Your task to perform on an android device: Search for hotels in Orlando Image 0: 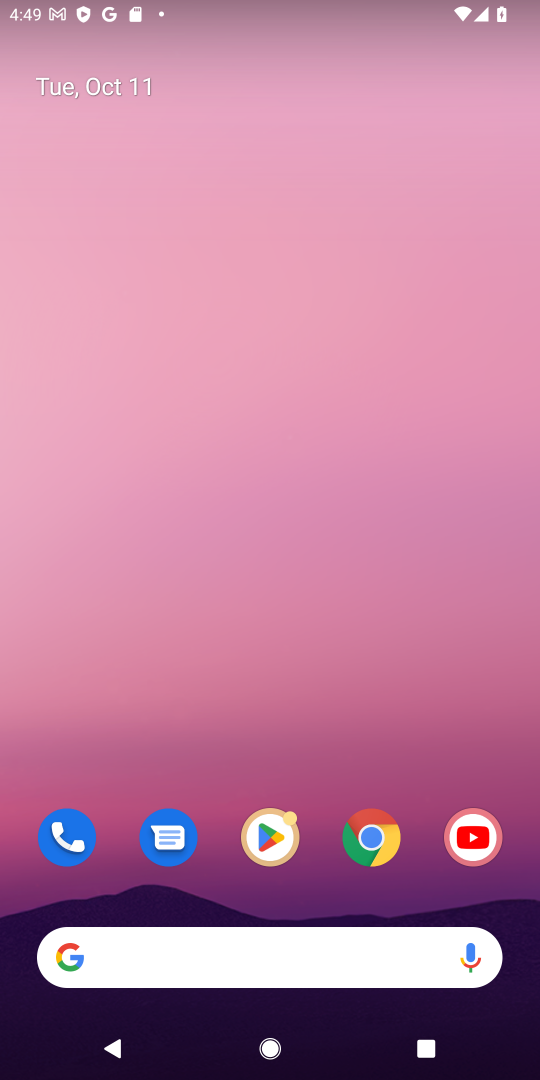
Step 0: drag from (314, 516) to (149, 78)
Your task to perform on an android device: Search for hotels in Orlando Image 1: 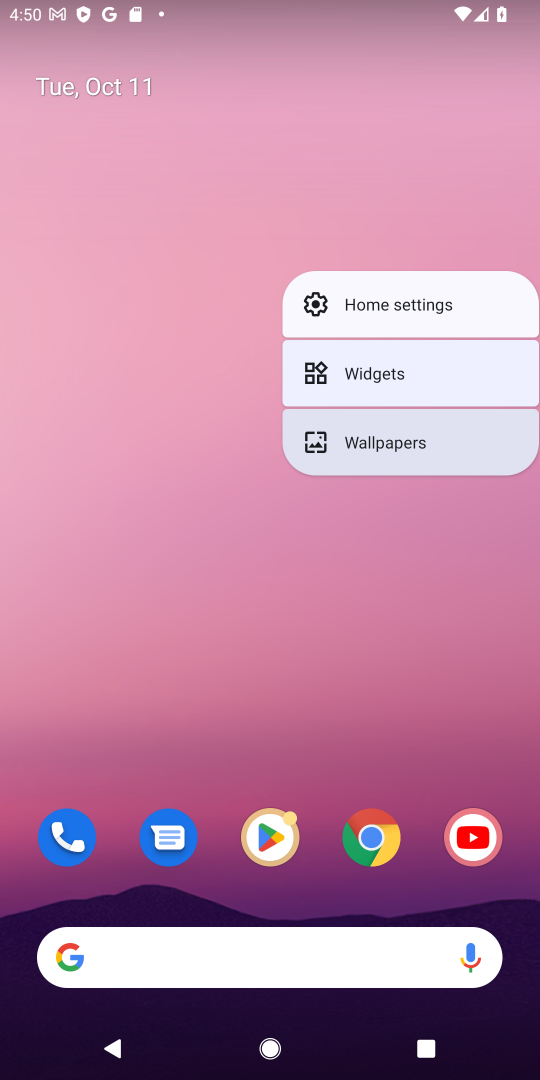
Step 1: drag from (201, 522) to (113, 163)
Your task to perform on an android device: Search for hotels in Orlando Image 2: 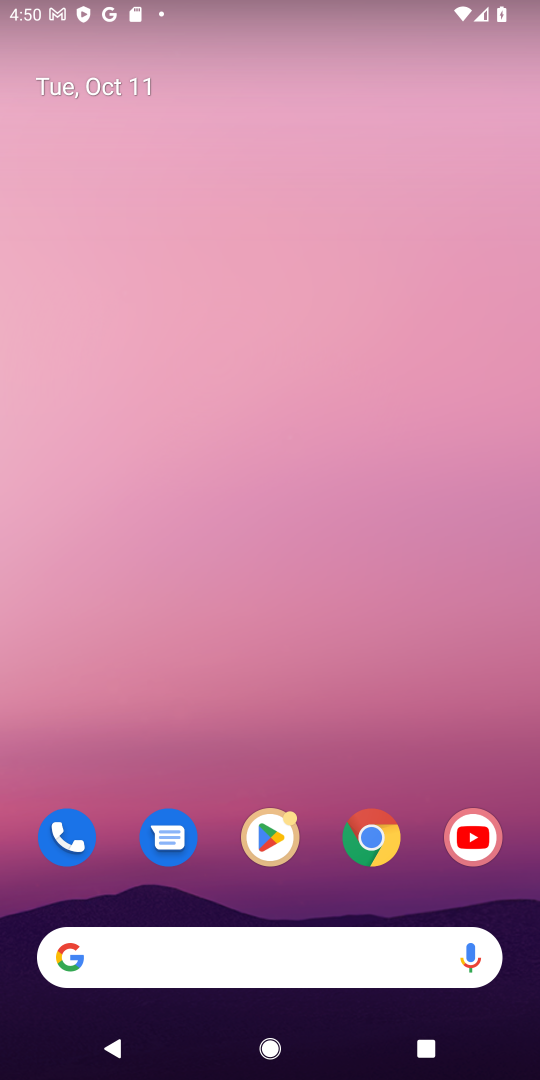
Step 2: drag from (193, 858) to (189, 192)
Your task to perform on an android device: Search for hotels in Orlando Image 3: 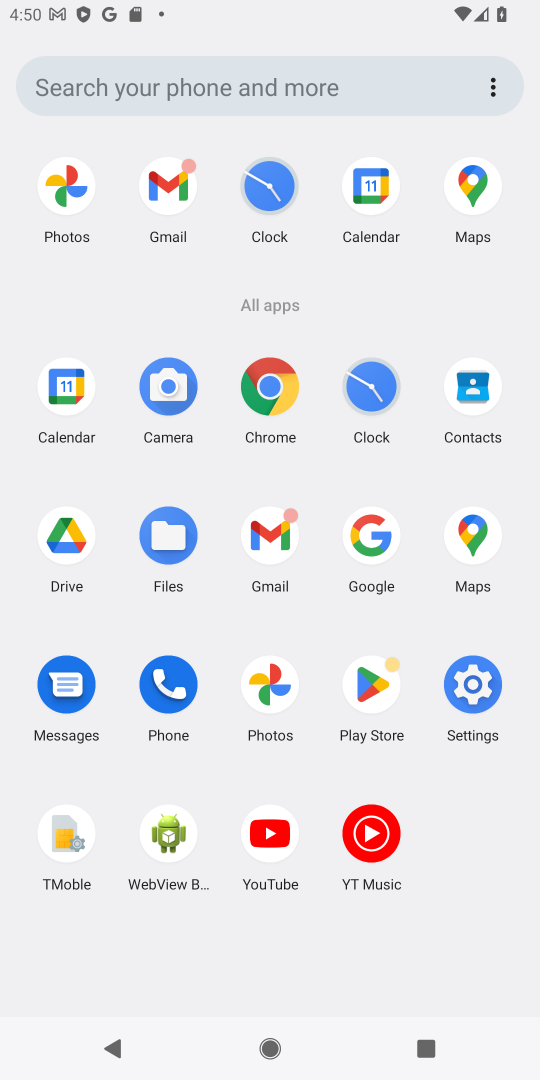
Step 3: click (274, 385)
Your task to perform on an android device: Search for hotels in Orlando Image 4: 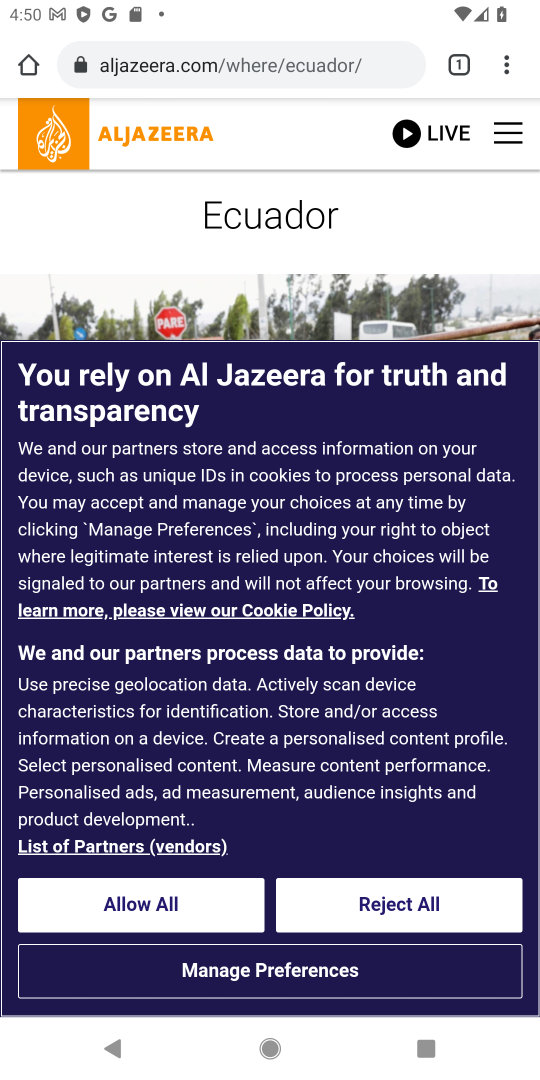
Step 4: click (300, 72)
Your task to perform on an android device: Search for hotels in Orlando Image 5: 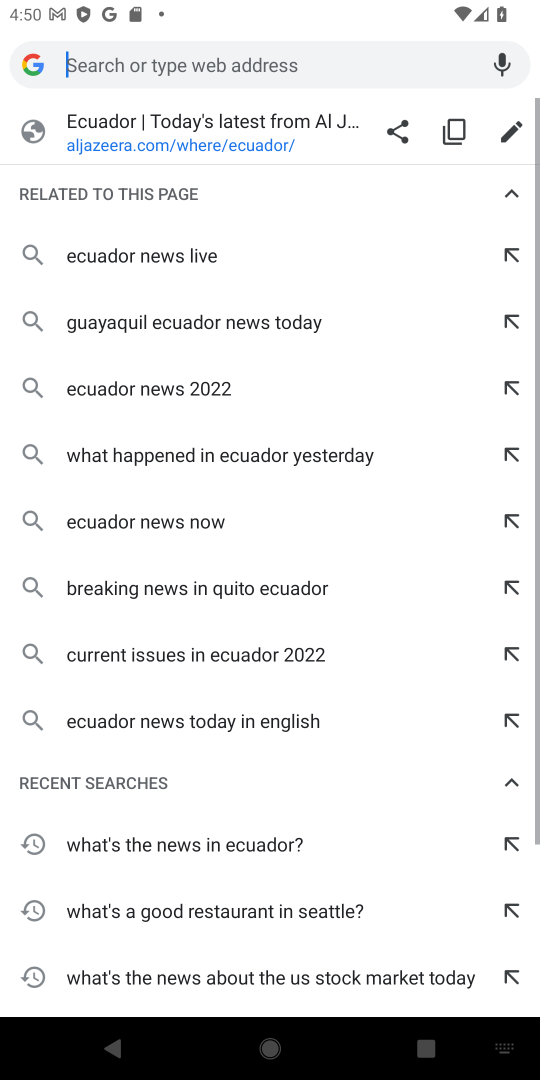
Step 5: click (304, 56)
Your task to perform on an android device: Search for hotels in Orlando Image 6: 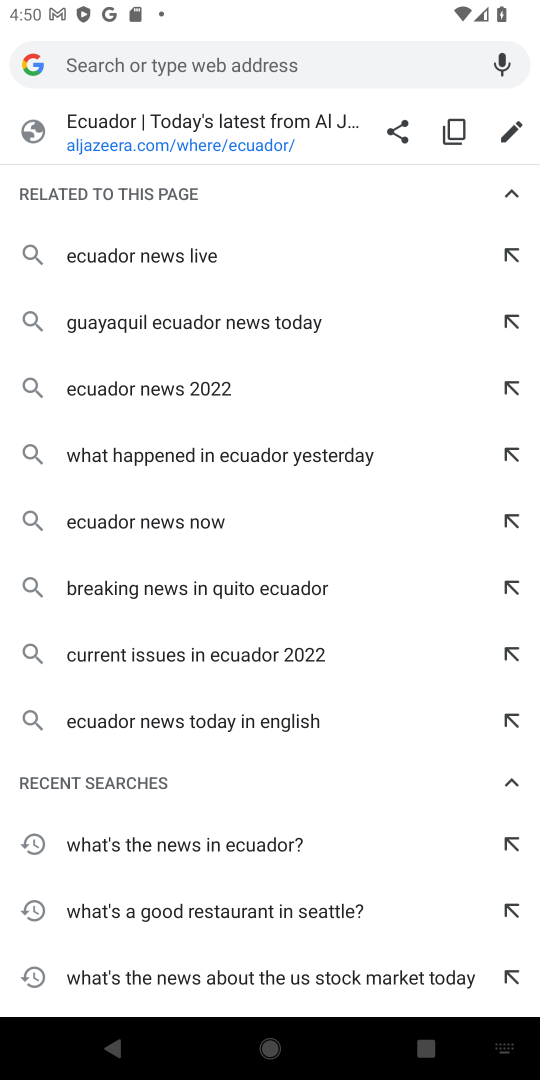
Step 6: drag from (448, 1042) to (496, 783)
Your task to perform on an android device: Search for hotels in Orlando Image 7: 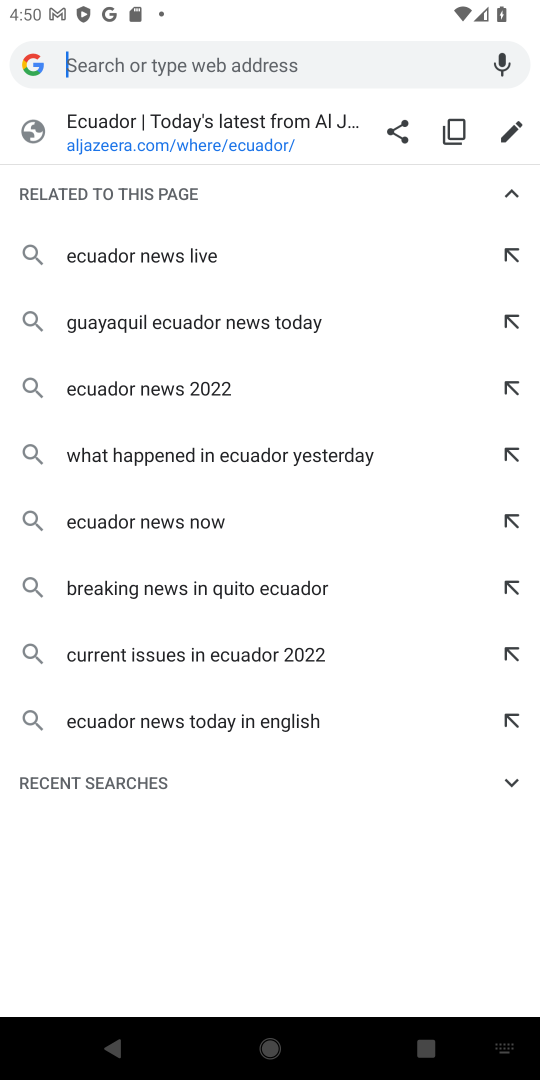
Step 7: type "hotels in Orlando"
Your task to perform on an android device: Search for hotels in Orlando Image 8: 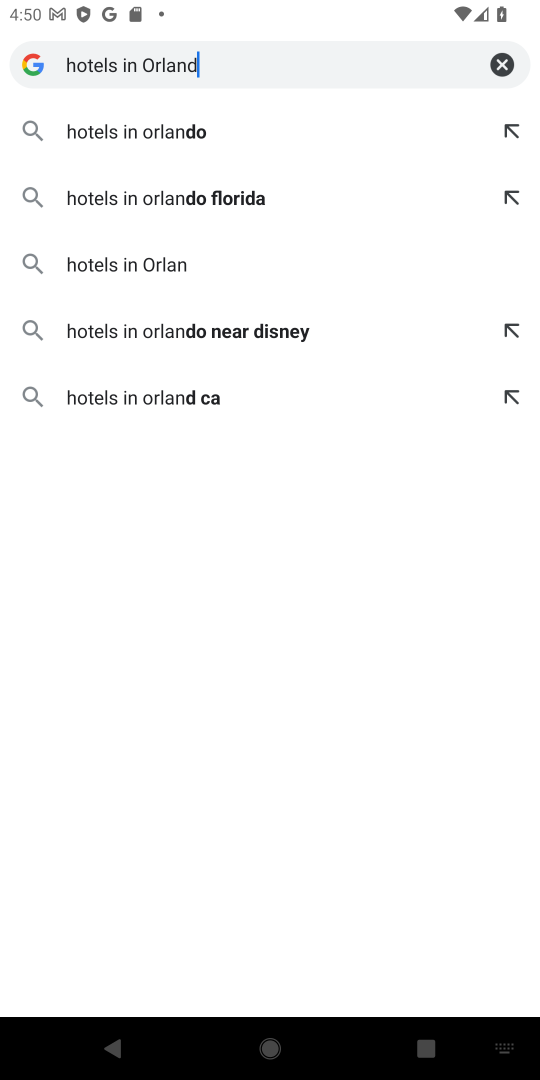
Step 8: press enter
Your task to perform on an android device: Search for hotels in Orlando Image 9: 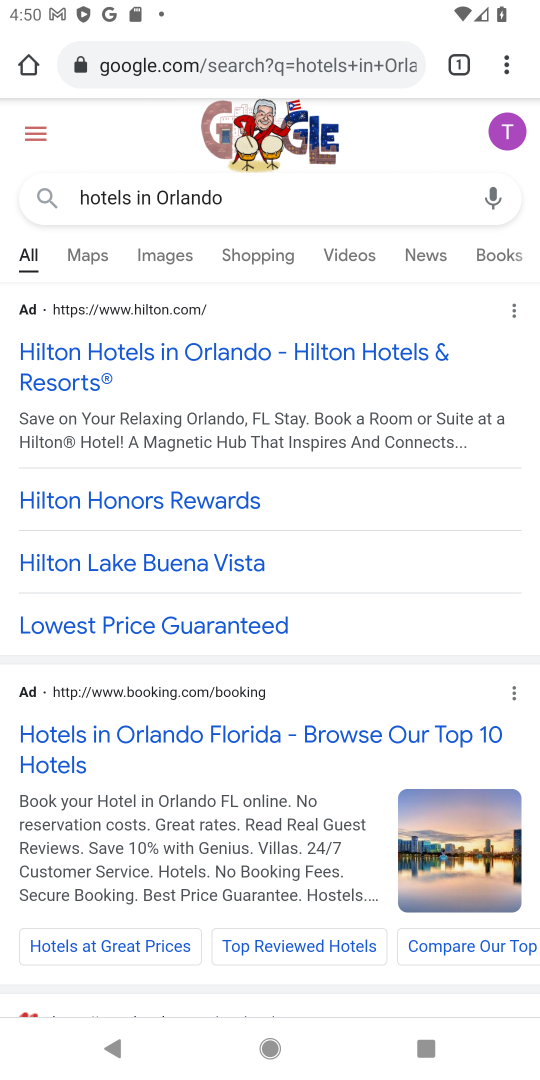
Step 9: click (285, 353)
Your task to perform on an android device: Search for hotels in Orlando Image 10: 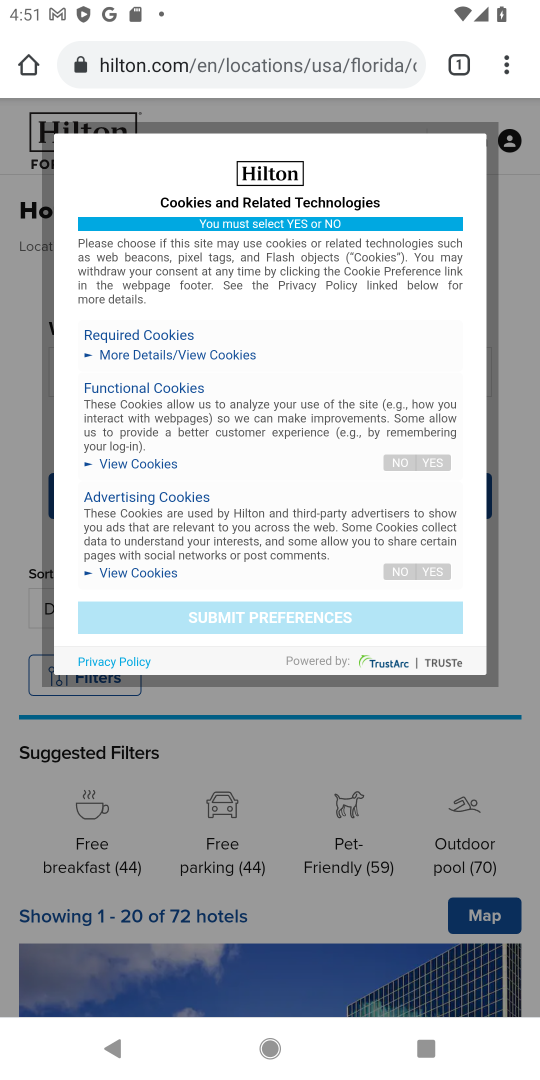
Step 10: task complete